Your task to perform on an android device: toggle improve location accuracy Image 0: 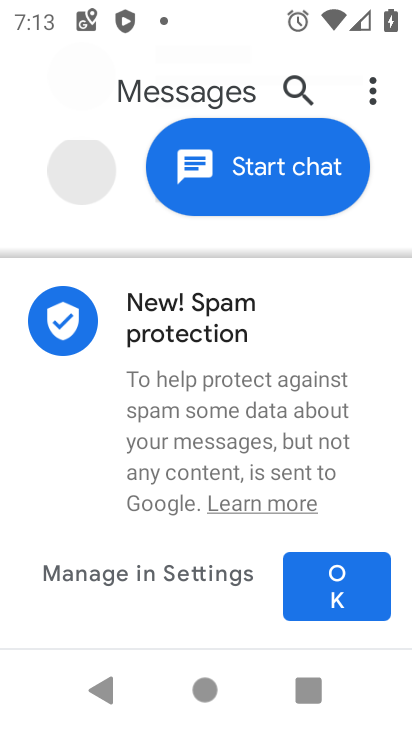
Step 0: press home button
Your task to perform on an android device: toggle improve location accuracy Image 1: 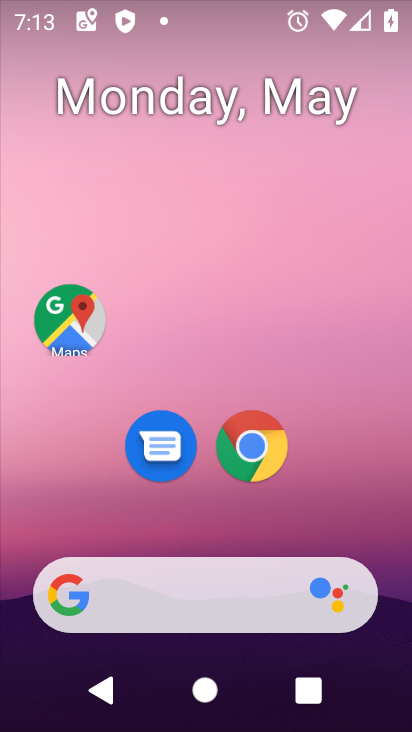
Step 1: drag from (335, 524) to (248, 176)
Your task to perform on an android device: toggle improve location accuracy Image 2: 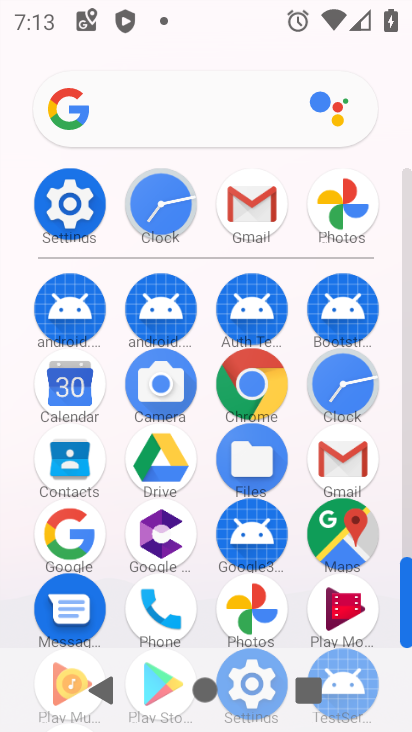
Step 2: click (67, 207)
Your task to perform on an android device: toggle improve location accuracy Image 3: 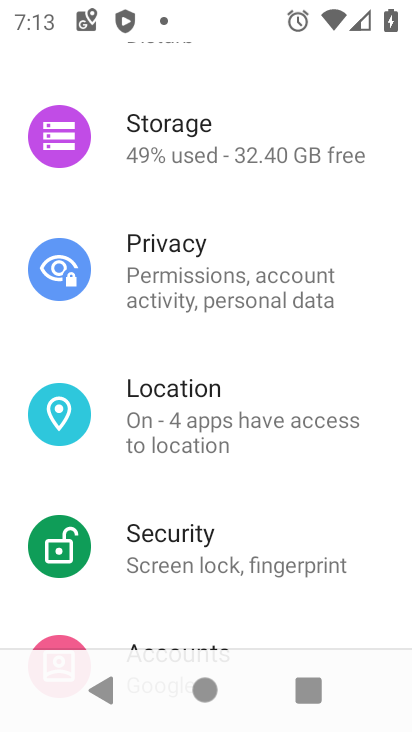
Step 3: click (171, 395)
Your task to perform on an android device: toggle improve location accuracy Image 4: 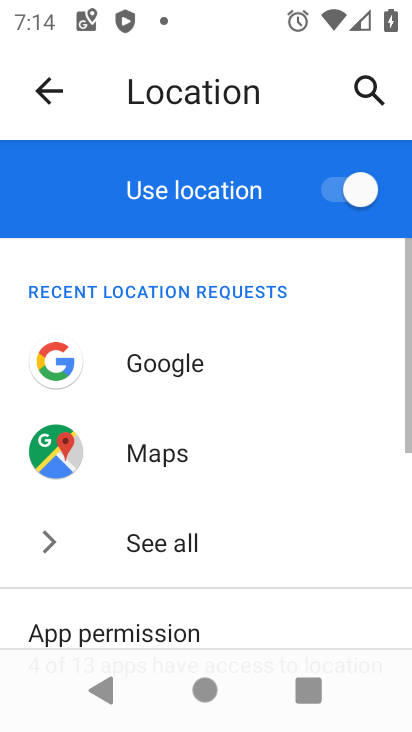
Step 4: drag from (242, 535) to (223, 281)
Your task to perform on an android device: toggle improve location accuracy Image 5: 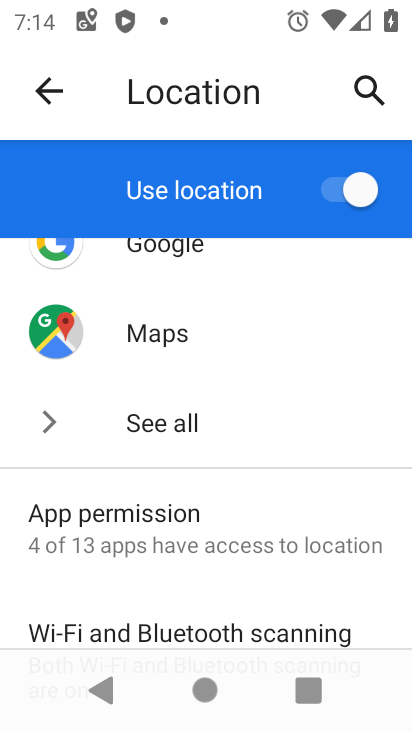
Step 5: drag from (244, 427) to (219, 255)
Your task to perform on an android device: toggle improve location accuracy Image 6: 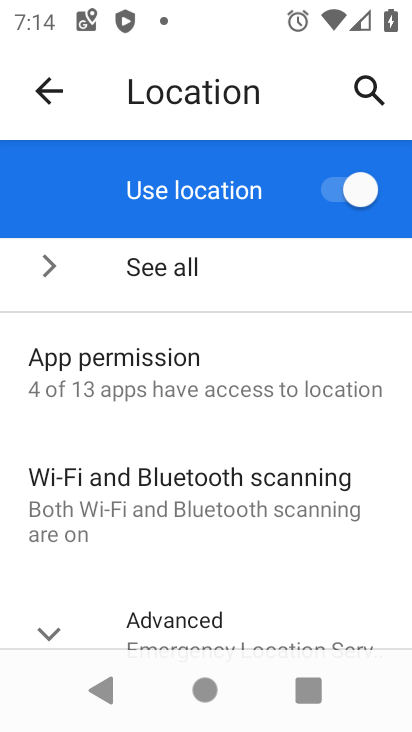
Step 6: drag from (237, 438) to (199, 156)
Your task to perform on an android device: toggle improve location accuracy Image 7: 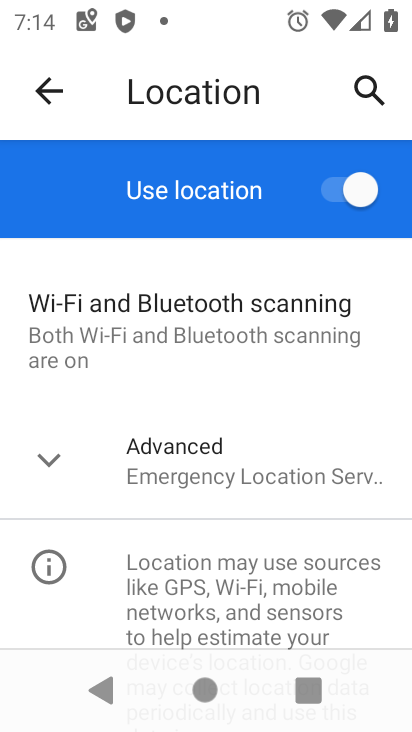
Step 7: click (62, 449)
Your task to perform on an android device: toggle improve location accuracy Image 8: 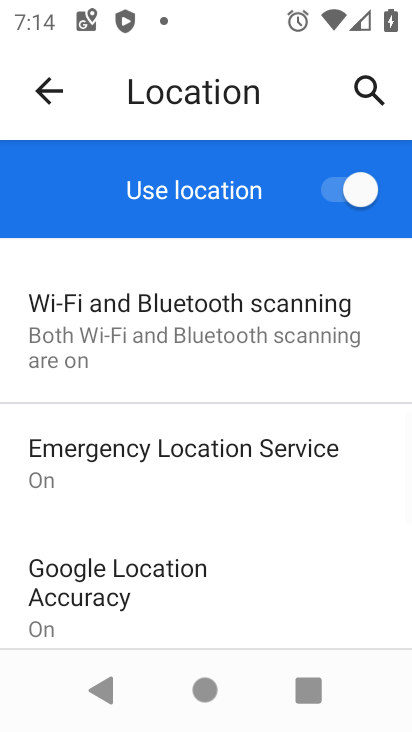
Step 8: drag from (294, 517) to (241, 217)
Your task to perform on an android device: toggle improve location accuracy Image 9: 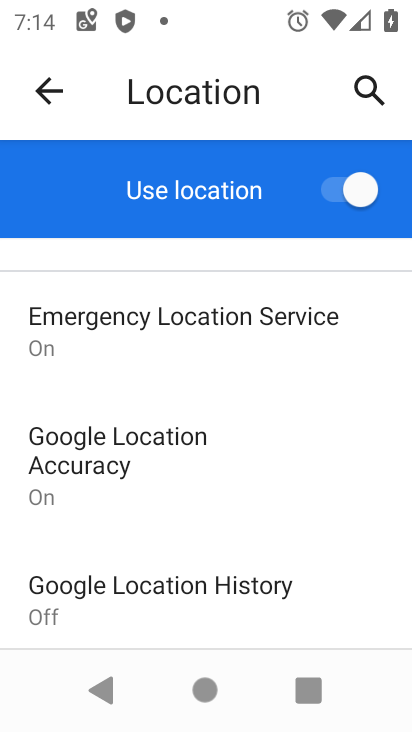
Step 9: click (80, 447)
Your task to perform on an android device: toggle improve location accuracy Image 10: 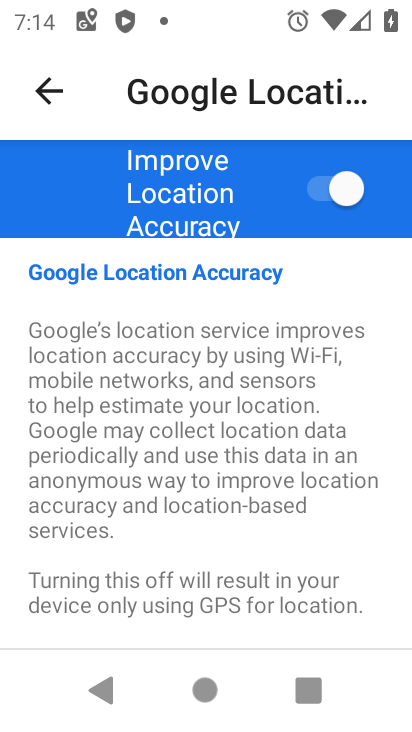
Step 10: click (342, 188)
Your task to perform on an android device: toggle improve location accuracy Image 11: 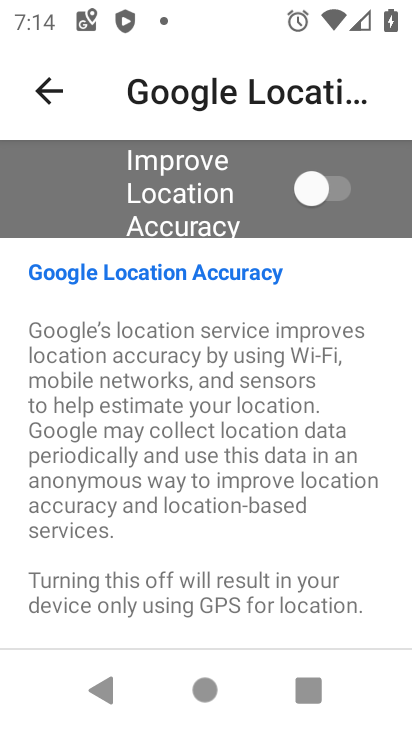
Step 11: task complete